Your task to perform on an android device: Open my contact list Image 0: 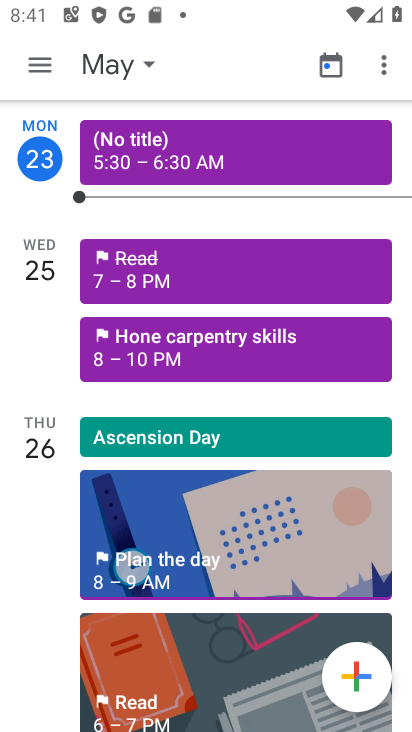
Step 0: press home button
Your task to perform on an android device: Open my contact list Image 1: 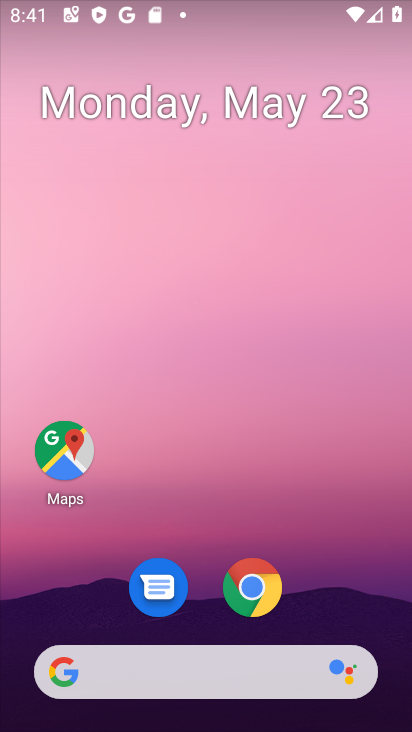
Step 1: drag from (208, 504) to (279, 23)
Your task to perform on an android device: Open my contact list Image 2: 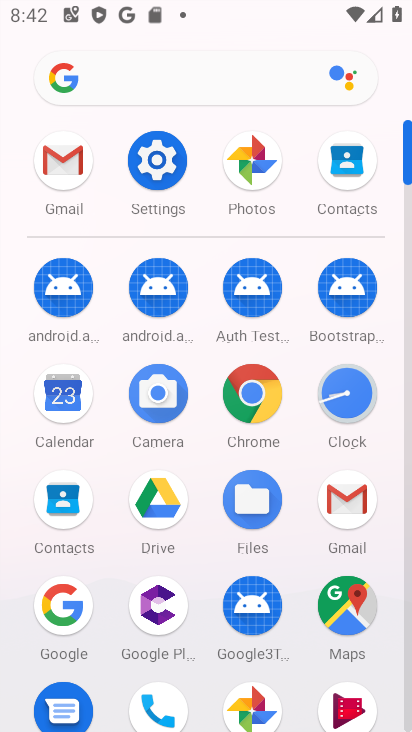
Step 2: click (347, 172)
Your task to perform on an android device: Open my contact list Image 3: 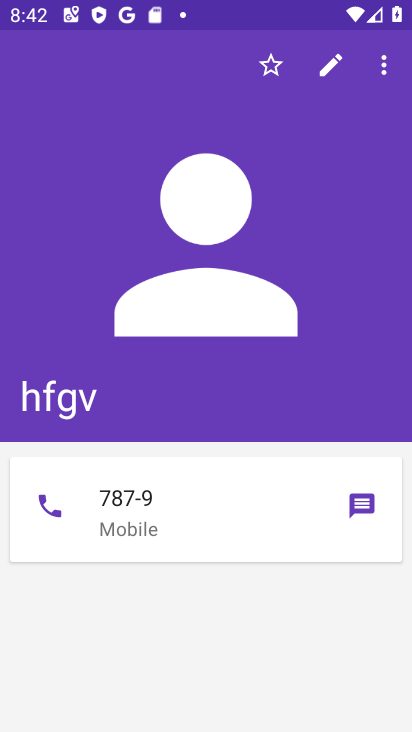
Step 3: task complete